Your task to perform on an android device: turn on priority inbox in the gmail app Image 0: 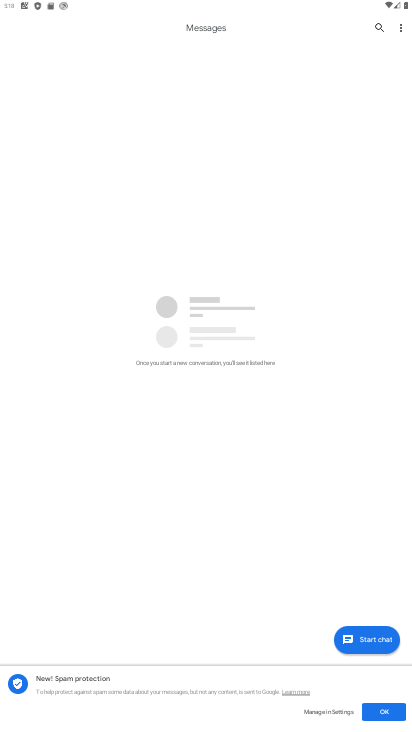
Step 0: press home button
Your task to perform on an android device: turn on priority inbox in the gmail app Image 1: 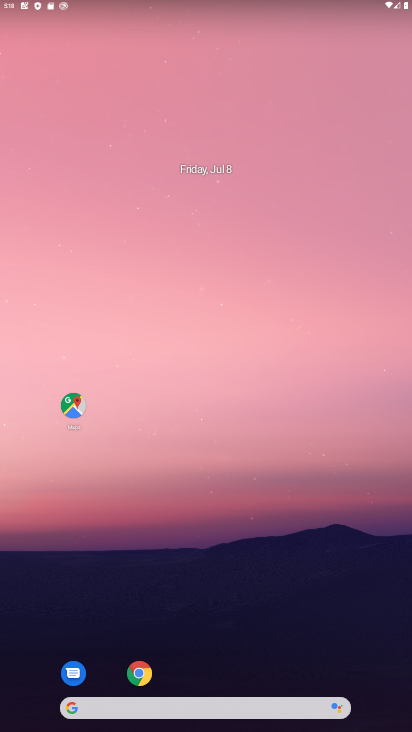
Step 1: drag from (175, 652) to (192, 346)
Your task to perform on an android device: turn on priority inbox in the gmail app Image 2: 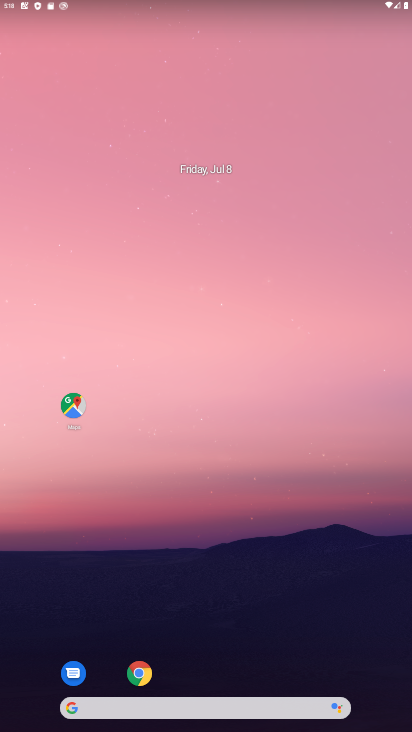
Step 2: drag from (206, 650) to (272, 41)
Your task to perform on an android device: turn on priority inbox in the gmail app Image 3: 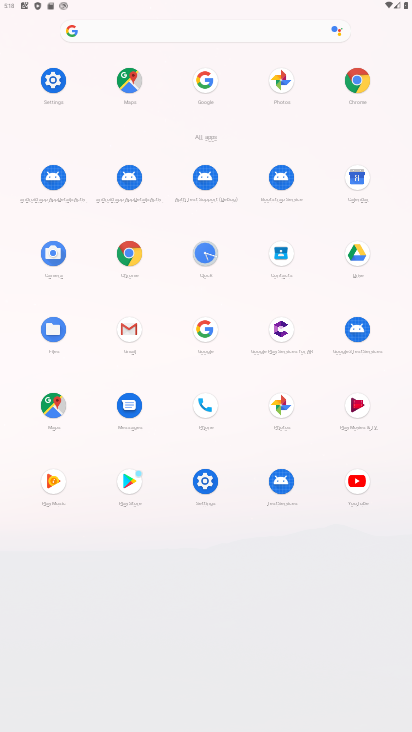
Step 3: click (130, 333)
Your task to perform on an android device: turn on priority inbox in the gmail app Image 4: 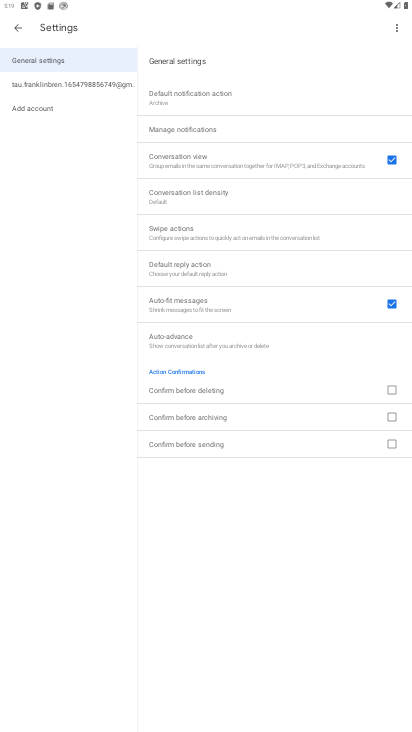
Step 4: click (114, 91)
Your task to perform on an android device: turn on priority inbox in the gmail app Image 5: 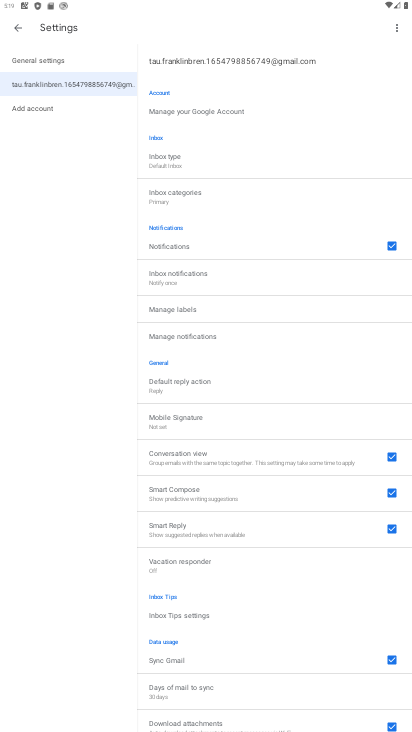
Step 5: click (174, 160)
Your task to perform on an android device: turn on priority inbox in the gmail app Image 6: 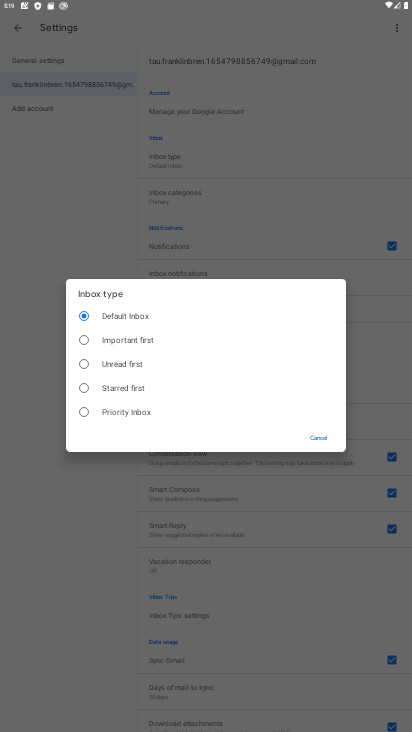
Step 6: click (82, 417)
Your task to perform on an android device: turn on priority inbox in the gmail app Image 7: 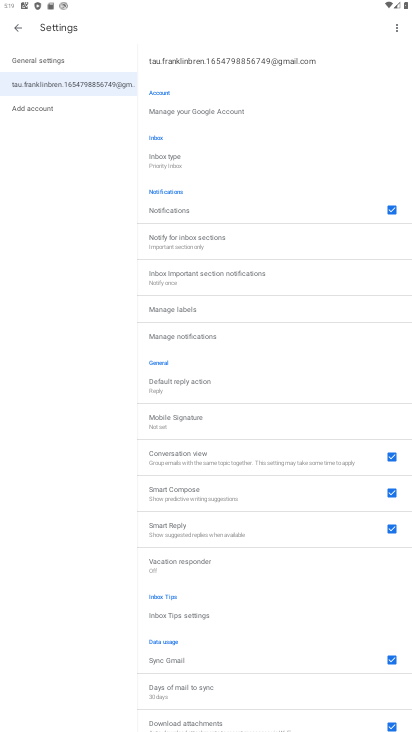
Step 7: task complete